Your task to perform on an android device: Open maps Image 0: 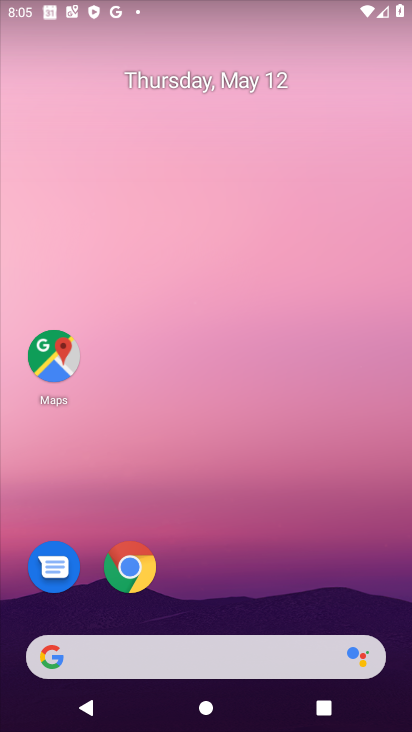
Step 0: drag from (228, 635) to (209, 201)
Your task to perform on an android device: Open maps Image 1: 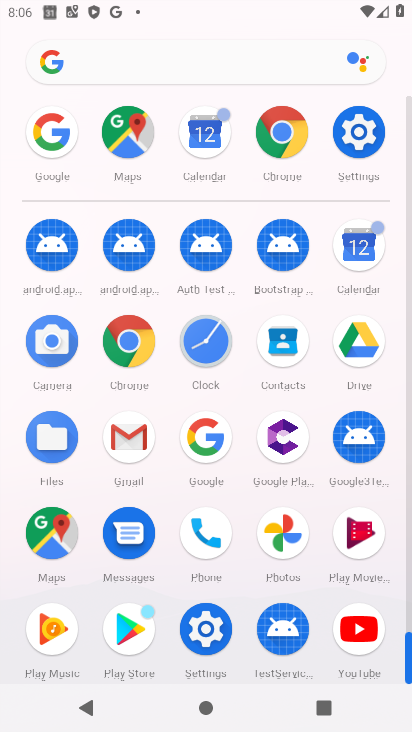
Step 1: click (62, 570)
Your task to perform on an android device: Open maps Image 2: 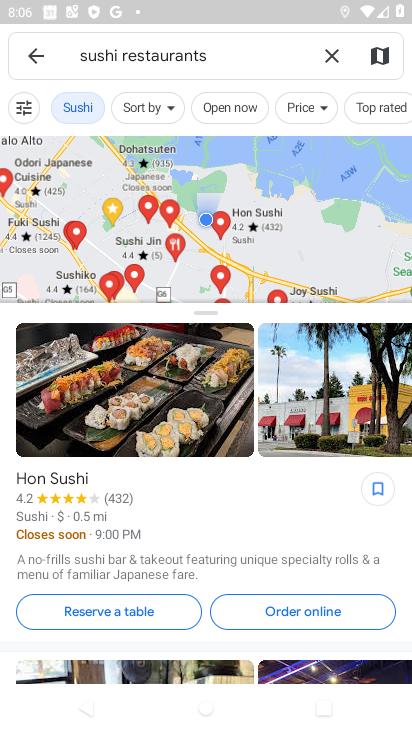
Step 2: task complete